Your task to perform on an android device: change text size in settings app Image 0: 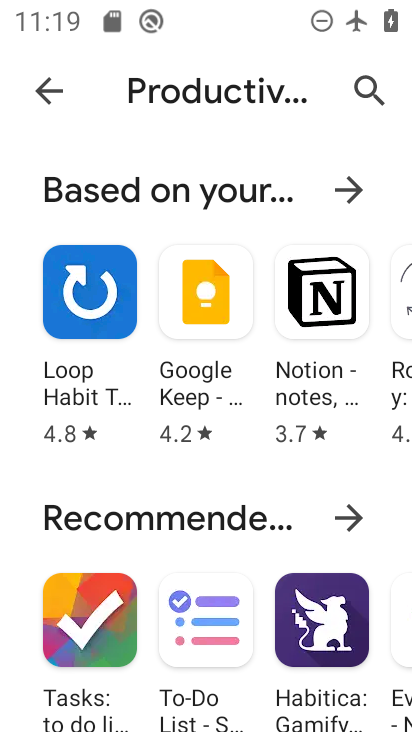
Step 0: press home button
Your task to perform on an android device: change text size in settings app Image 1: 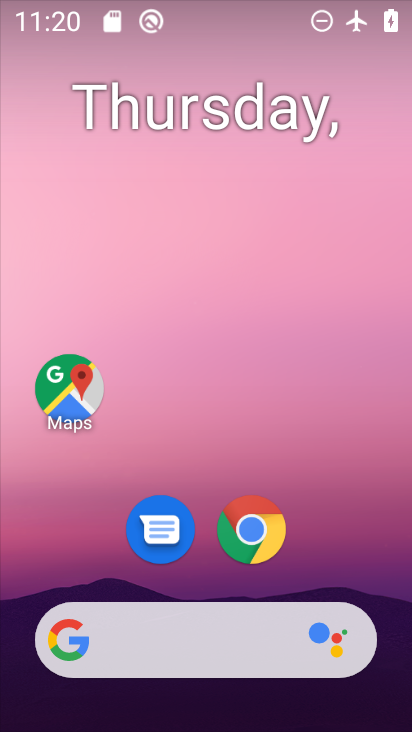
Step 1: drag from (180, 675) to (332, 83)
Your task to perform on an android device: change text size in settings app Image 2: 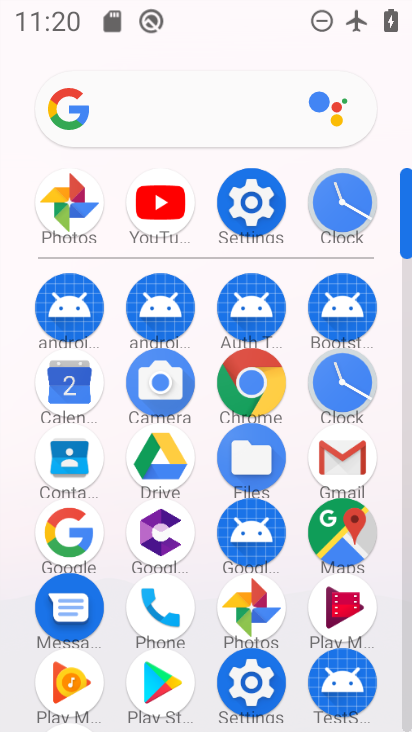
Step 2: click (258, 206)
Your task to perform on an android device: change text size in settings app Image 3: 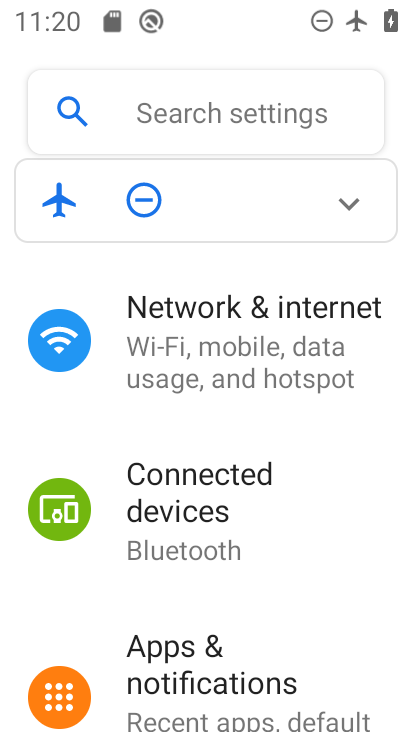
Step 3: drag from (275, 646) to (375, 207)
Your task to perform on an android device: change text size in settings app Image 4: 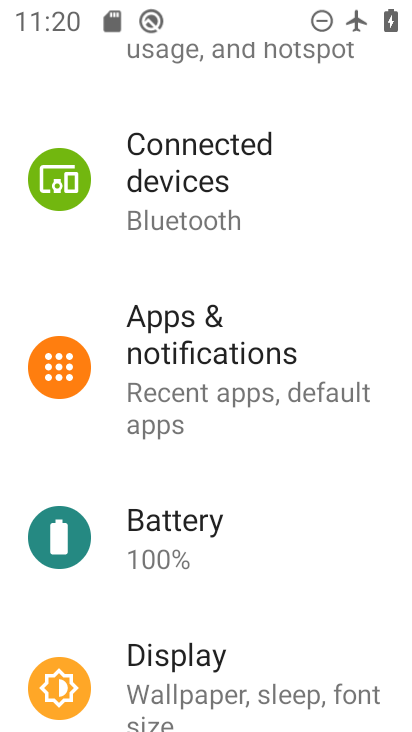
Step 4: click (286, 688)
Your task to perform on an android device: change text size in settings app Image 5: 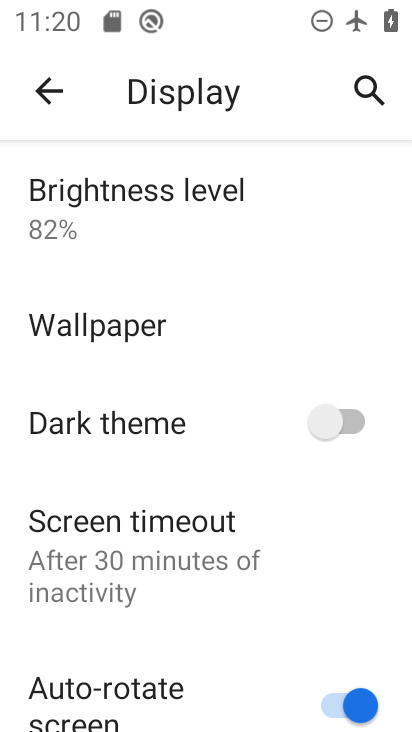
Step 5: drag from (250, 608) to (337, 163)
Your task to perform on an android device: change text size in settings app Image 6: 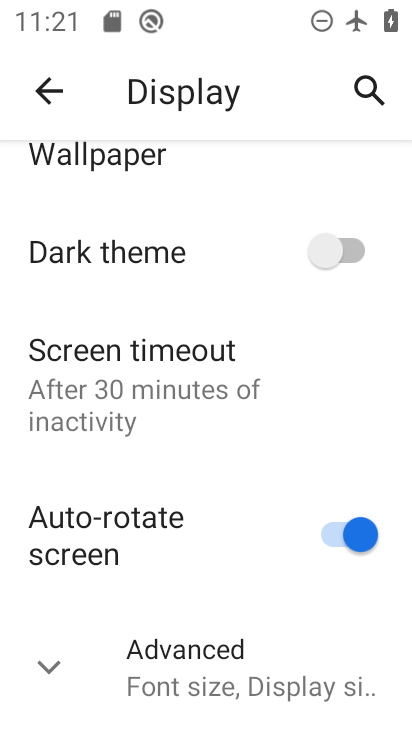
Step 6: click (215, 703)
Your task to perform on an android device: change text size in settings app Image 7: 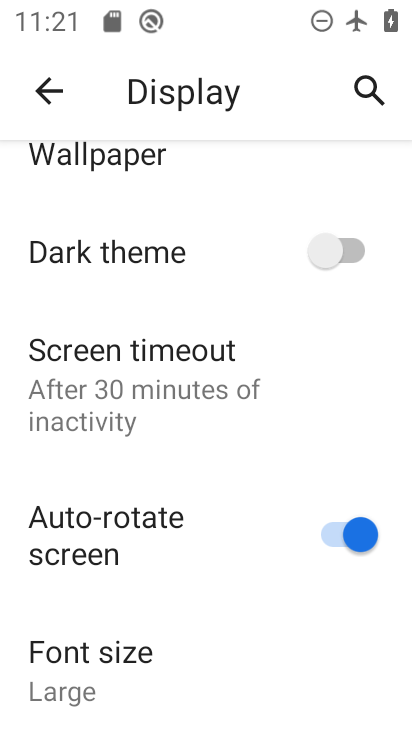
Step 7: click (156, 664)
Your task to perform on an android device: change text size in settings app Image 8: 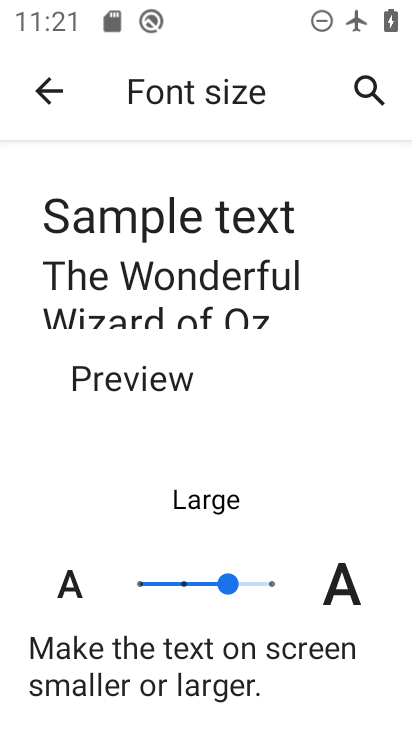
Step 8: click (191, 579)
Your task to perform on an android device: change text size in settings app Image 9: 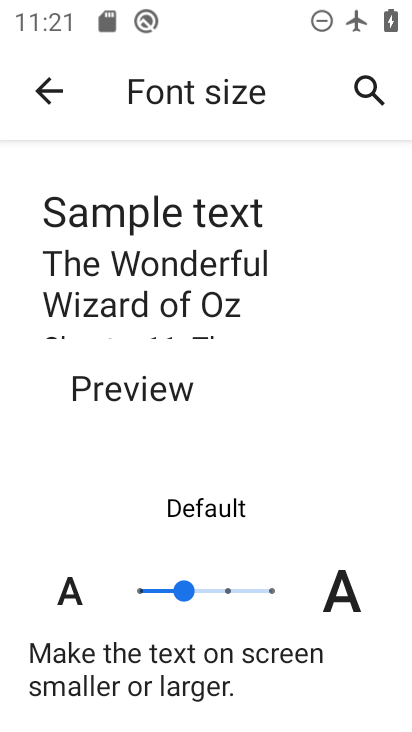
Step 9: task complete